Your task to perform on an android device: Go to accessibility settings Image 0: 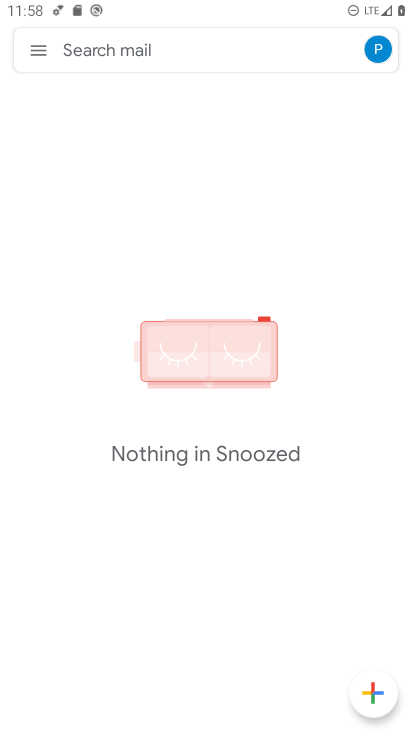
Step 0: press home button
Your task to perform on an android device: Go to accessibility settings Image 1: 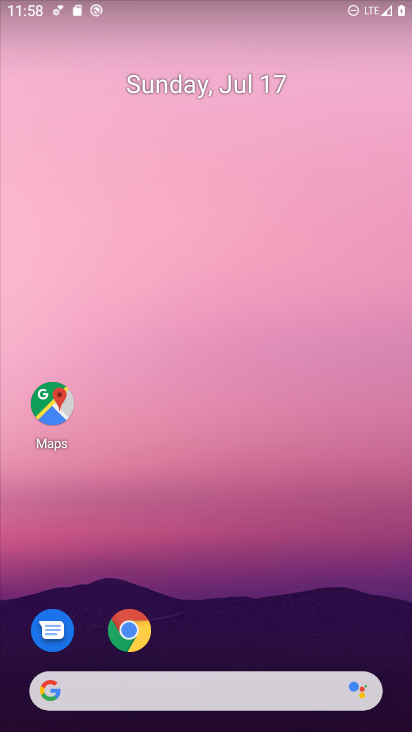
Step 1: click (205, 655)
Your task to perform on an android device: Go to accessibility settings Image 2: 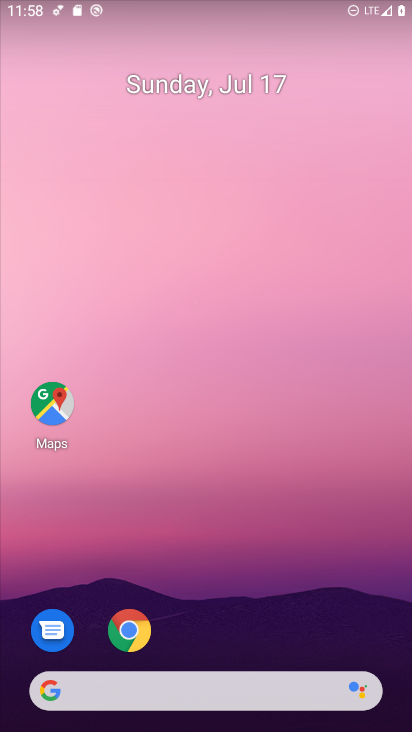
Step 2: drag from (203, 513) to (214, 71)
Your task to perform on an android device: Go to accessibility settings Image 3: 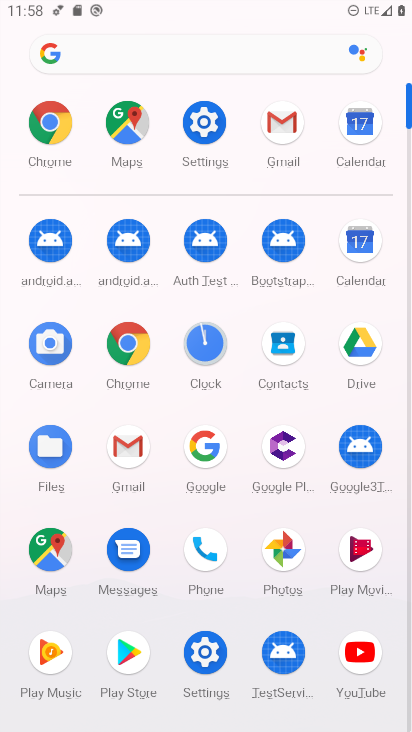
Step 3: click (199, 132)
Your task to perform on an android device: Go to accessibility settings Image 4: 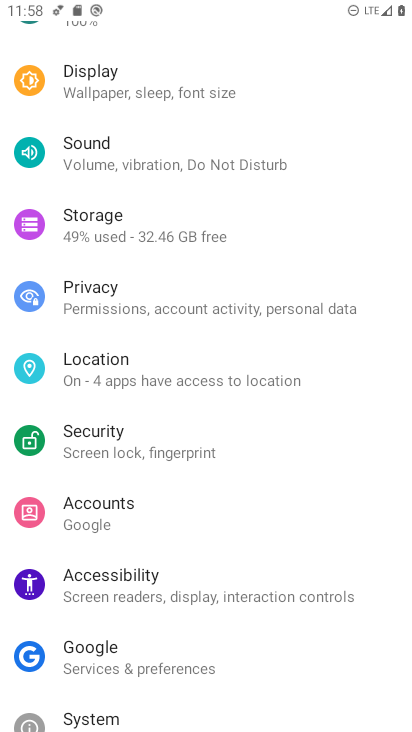
Step 4: click (153, 581)
Your task to perform on an android device: Go to accessibility settings Image 5: 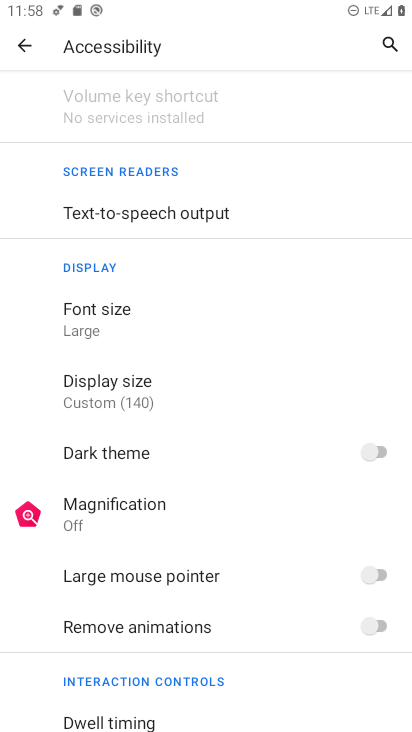
Step 5: task complete